Your task to perform on an android device: Open internet settings Image 0: 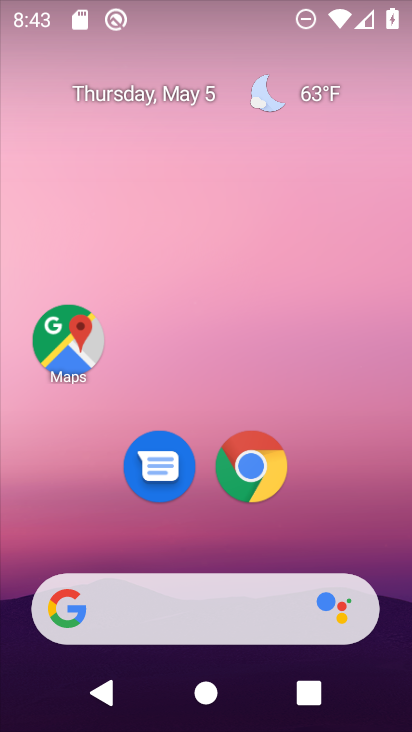
Step 0: click (198, 279)
Your task to perform on an android device: Open internet settings Image 1: 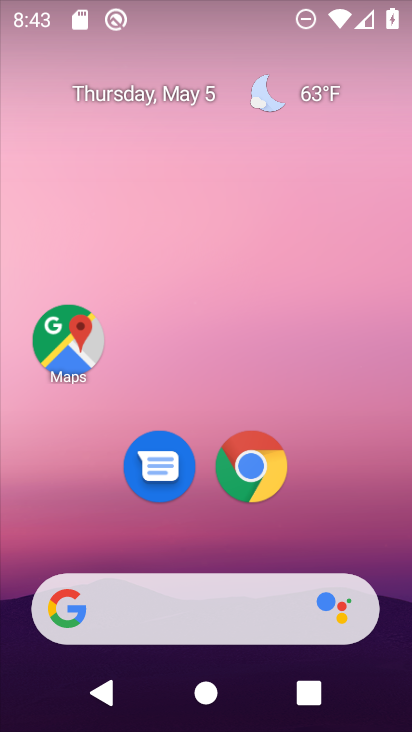
Step 1: drag from (199, 601) to (206, 32)
Your task to perform on an android device: Open internet settings Image 2: 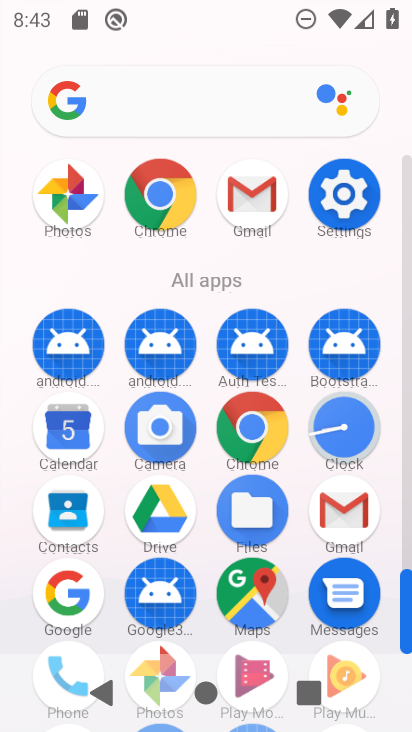
Step 2: click (339, 223)
Your task to perform on an android device: Open internet settings Image 3: 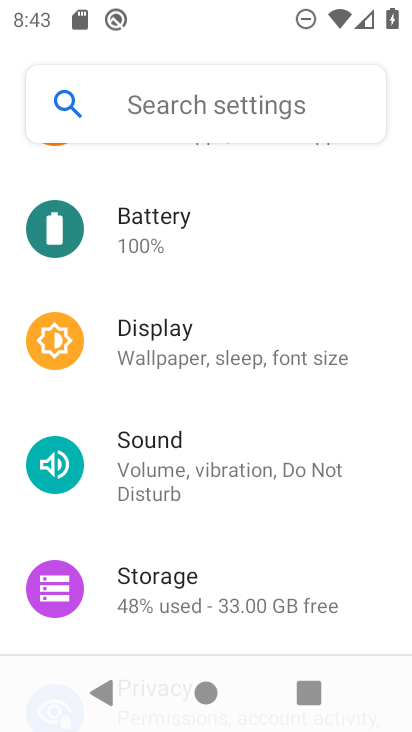
Step 3: drag from (206, 187) to (171, 724)
Your task to perform on an android device: Open internet settings Image 4: 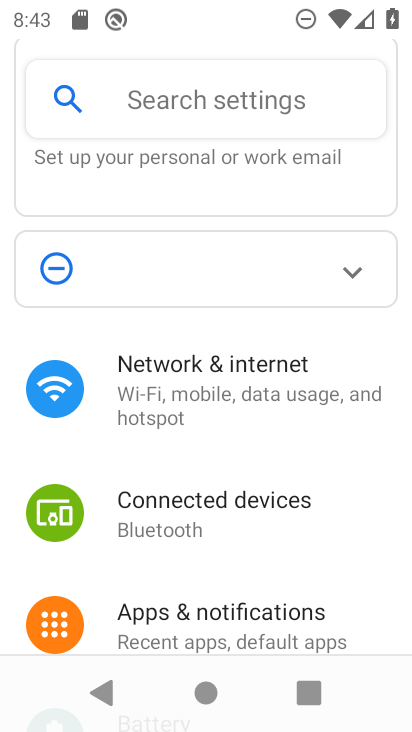
Step 4: click (177, 406)
Your task to perform on an android device: Open internet settings Image 5: 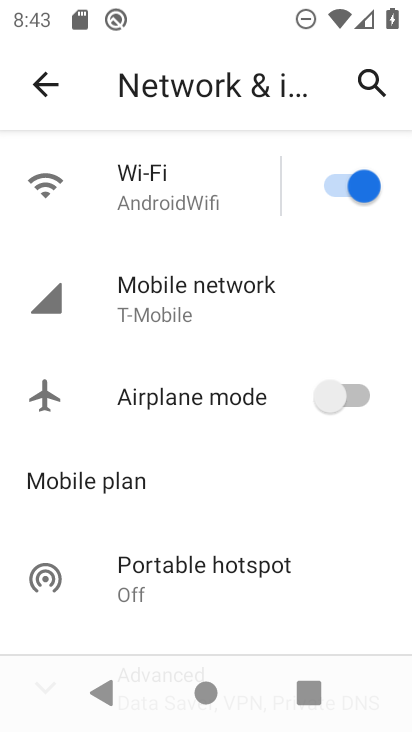
Step 5: task complete